Your task to perform on an android device: show emergency info Image 0: 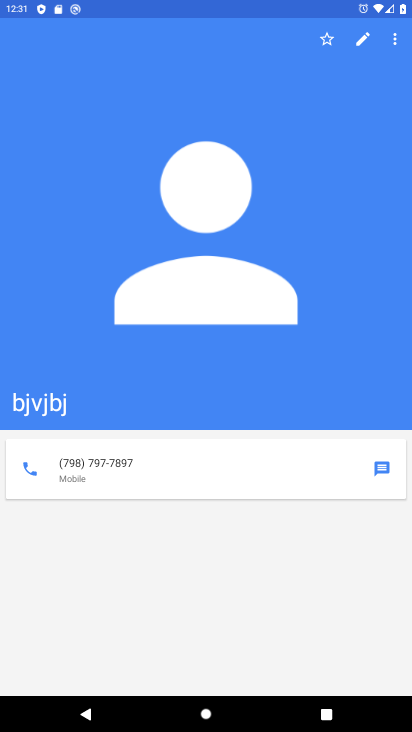
Step 0: press home button
Your task to perform on an android device: show emergency info Image 1: 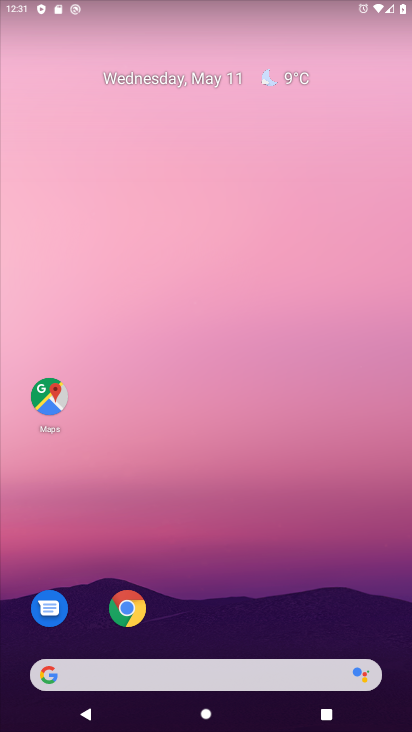
Step 1: drag from (301, 658) to (240, 153)
Your task to perform on an android device: show emergency info Image 2: 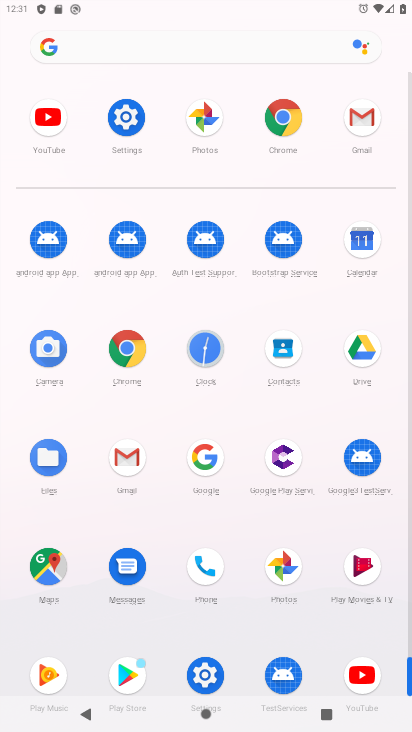
Step 2: click (136, 149)
Your task to perform on an android device: show emergency info Image 3: 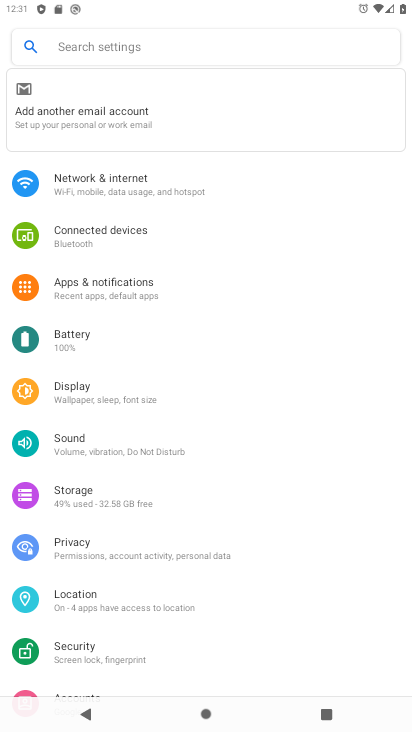
Step 3: drag from (171, 507) to (166, 1)
Your task to perform on an android device: show emergency info Image 4: 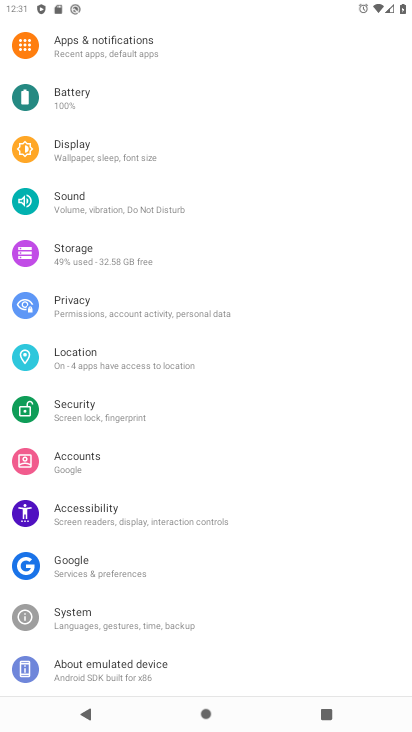
Step 4: drag from (207, 522) to (173, 116)
Your task to perform on an android device: show emergency info Image 5: 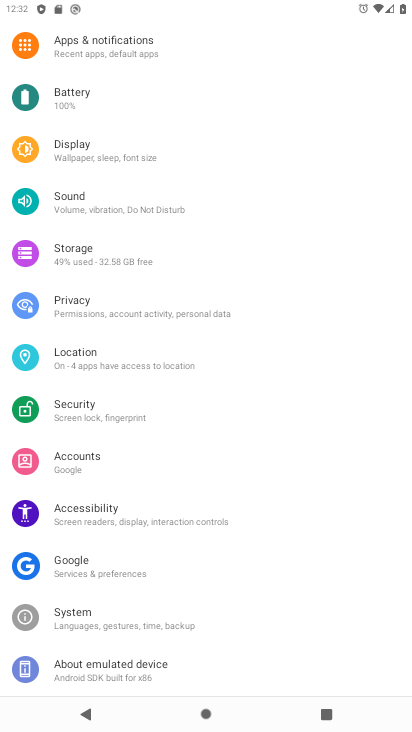
Step 5: click (132, 676)
Your task to perform on an android device: show emergency info Image 6: 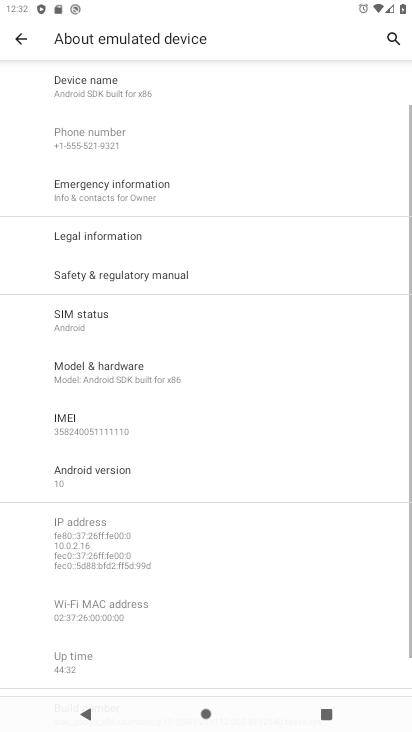
Step 6: click (215, 195)
Your task to perform on an android device: show emergency info Image 7: 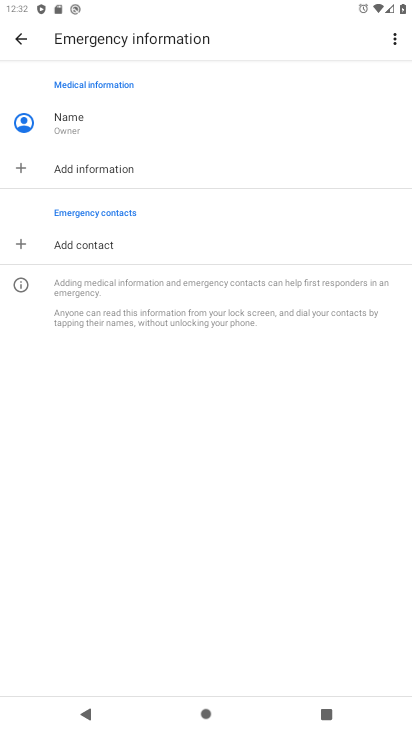
Step 7: task complete